Your task to perform on an android device: turn off airplane mode Image 0: 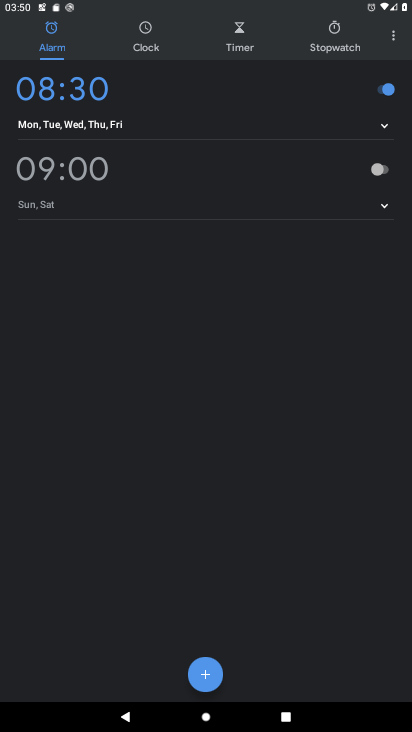
Step 0: press home button
Your task to perform on an android device: turn off airplane mode Image 1: 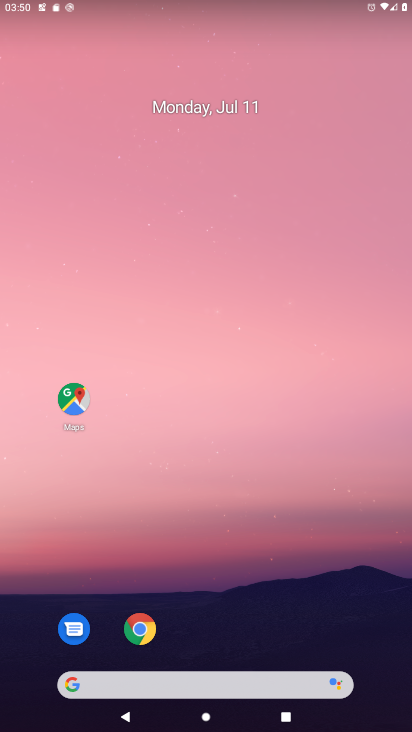
Step 1: task complete